Your task to perform on an android device: Search for vegetarian restaurants on Maps Image 0: 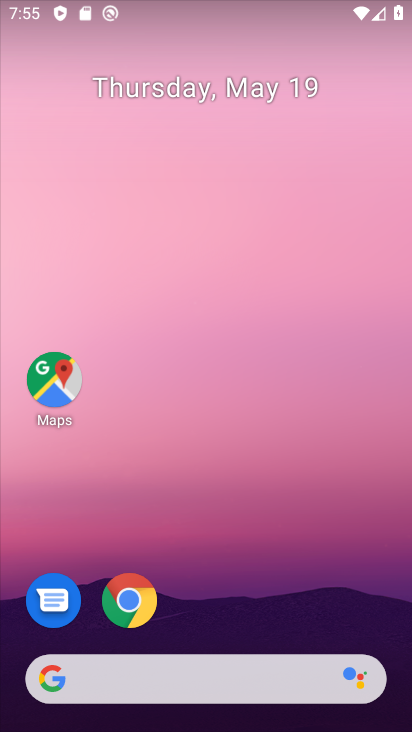
Step 0: click (142, 591)
Your task to perform on an android device: Search for vegetarian restaurants on Maps Image 1: 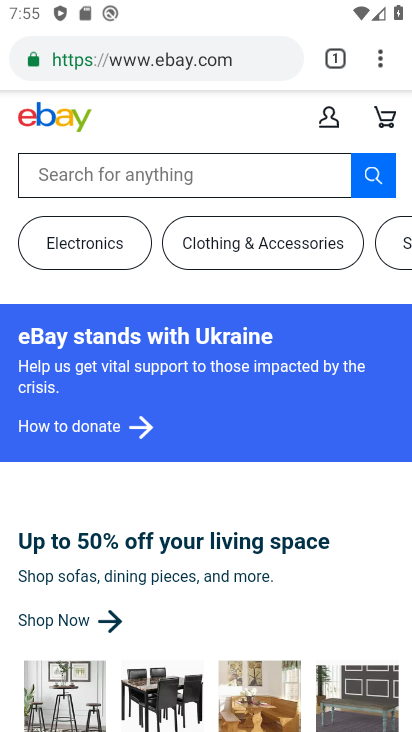
Step 1: press home button
Your task to perform on an android device: Search for vegetarian restaurants on Maps Image 2: 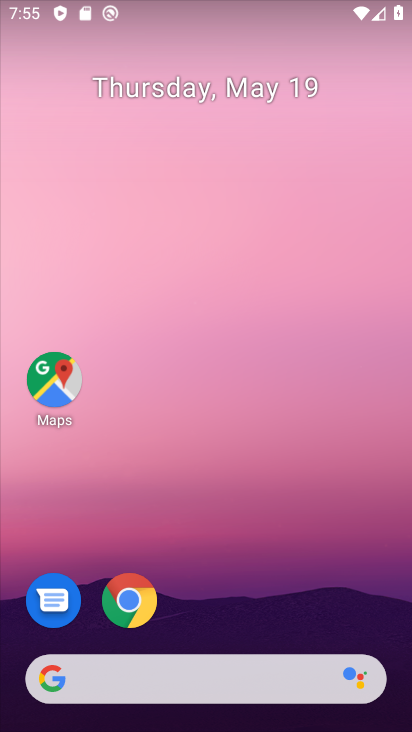
Step 2: click (48, 389)
Your task to perform on an android device: Search for vegetarian restaurants on Maps Image 3: 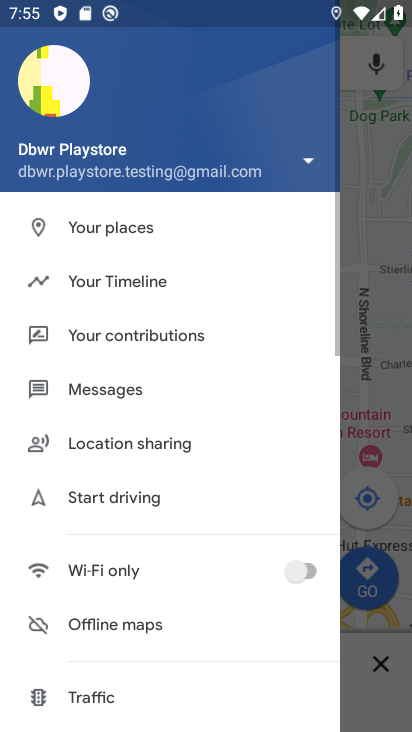
Step 3: click (377, 260)
Your task to perform on an android device: Search for vegetarian restaurants on Maps Image 4: 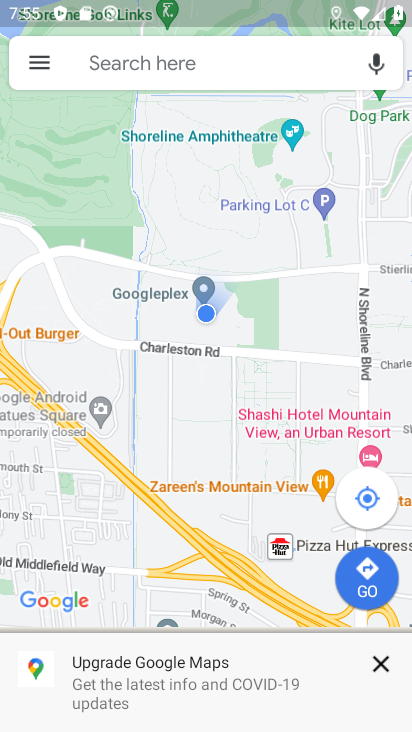
Step 4: click (170, 51)
Your task to perform on an android device: Search for vegetarian restaurants on Maps Image 5: 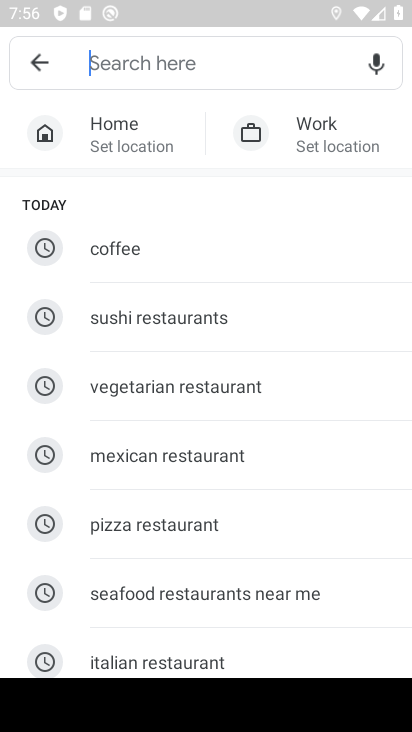
Step 5: type "vege"
Your task to perform on an android device: Search for vegetarian restaurants on Maps Image 6: 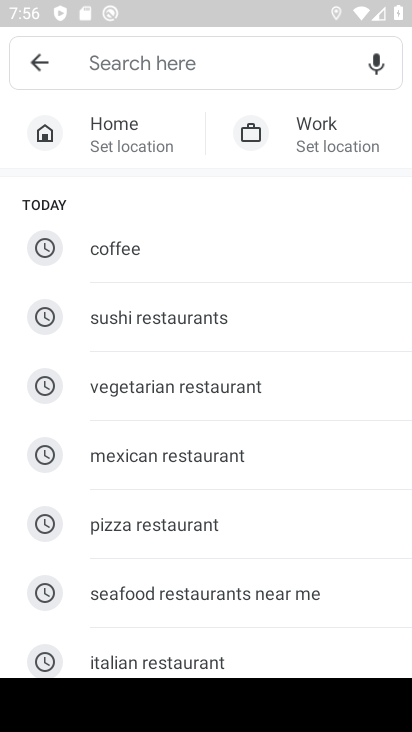
Step 6: click (235, 396)
Your task to perform on an android device: Search for vegetarian restaurants on Maps Image 7: 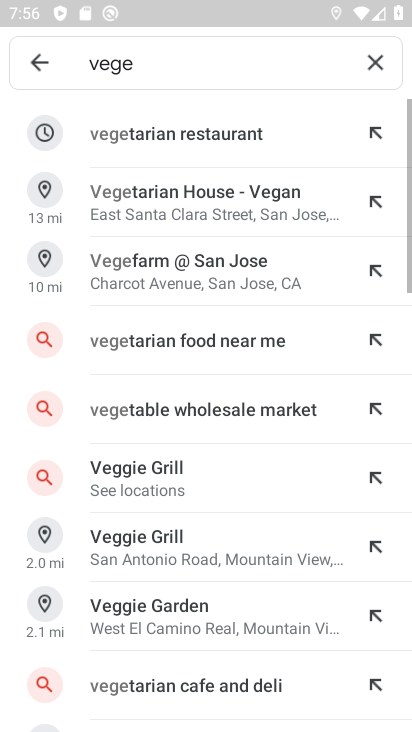
Step 7: task complete